Your task to perform on an android device: turn off javascript in the chrome app Image 0: 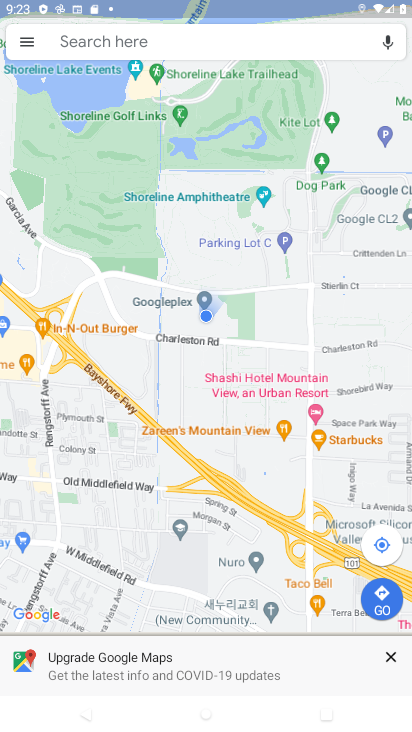
Step 0: press home button
Your task to perform on an android device: turn off javascript in the chrome app Image 1: 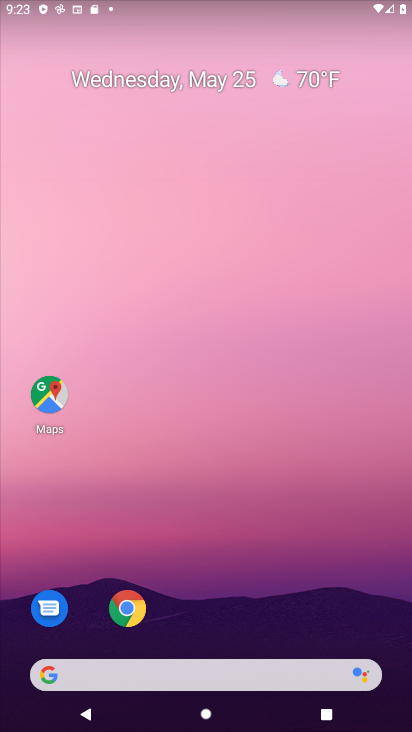
Step 1: click (128, 605)
Your task to perform on an android device: turn off javascript in the chrome app Image 2: 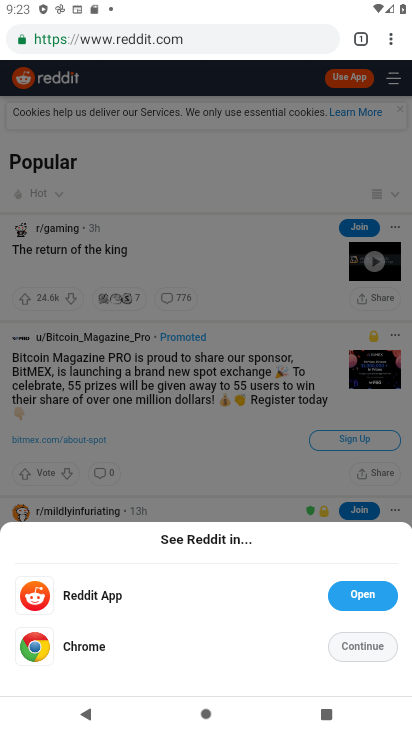
Step 2: click (389, 37)
Your task to perform on an android device: turn off javascript in the chrome app Image 3: 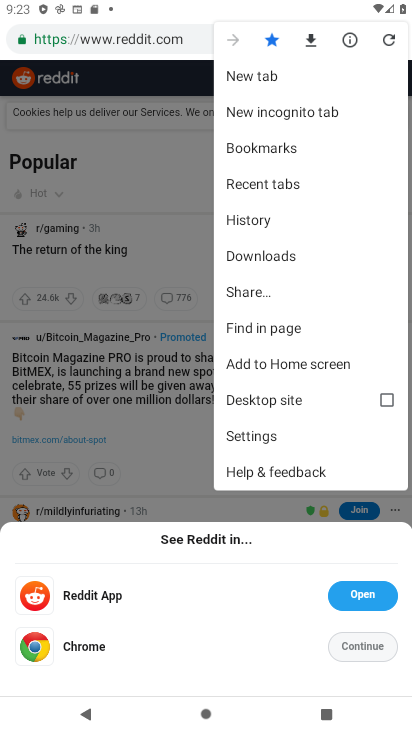
Step 3: click (258, 429)
Your task to perform on an android device: turn off javascript in the chrome app Image 4: 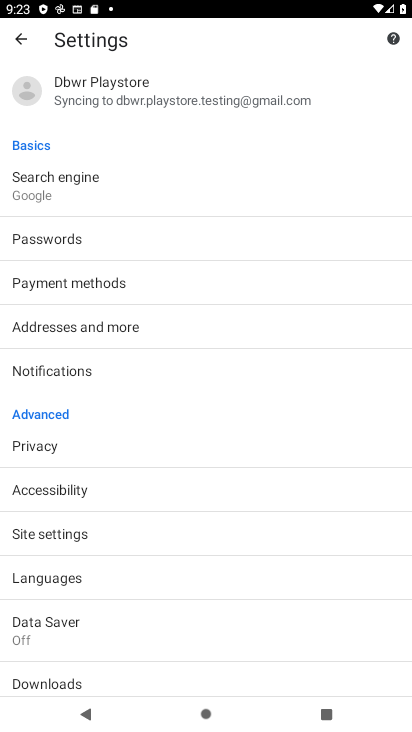
Step 4: click (119, 519)
Your task to perform on an android device: turn off javascript in the chrome app Image 5: 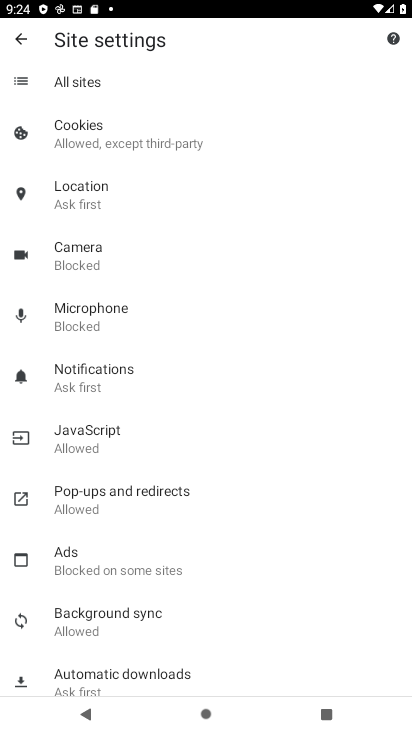
Step 5: click (127, 449)
Your task to perform on an android device: turn off javascript in the chrome app Image 6: 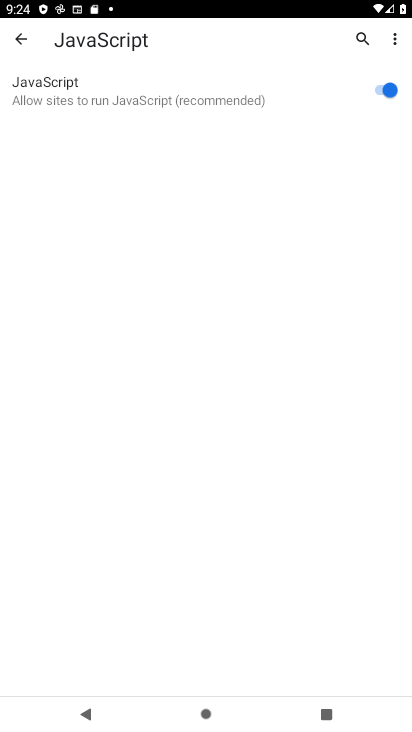
Step 6: click (378, 87)
Your task to perform on an android device: turn off javascript in the chrome app Image 7: 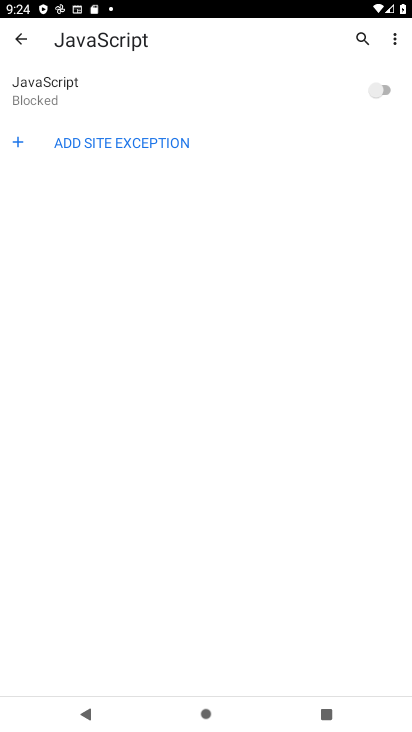
Step 7: task complete